Your task to perform on an android device: turn on javascript in the chrome app Image 0: 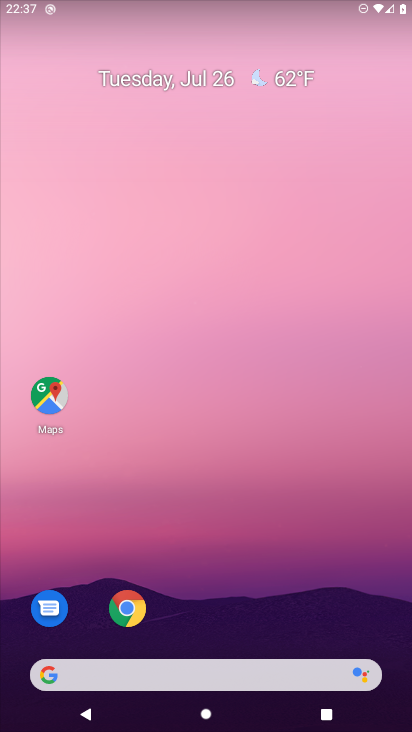
Step 0: click (120, 608)
Your task to perform on an android device: turn on javascript in the chrome app Image 1: 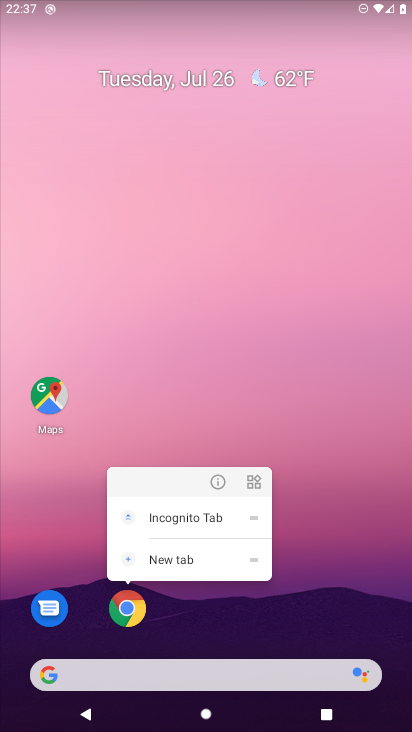
Step 1: click (121, 615)
Your task to perform on an android device: turn on javascript in the chrome app Image 2: 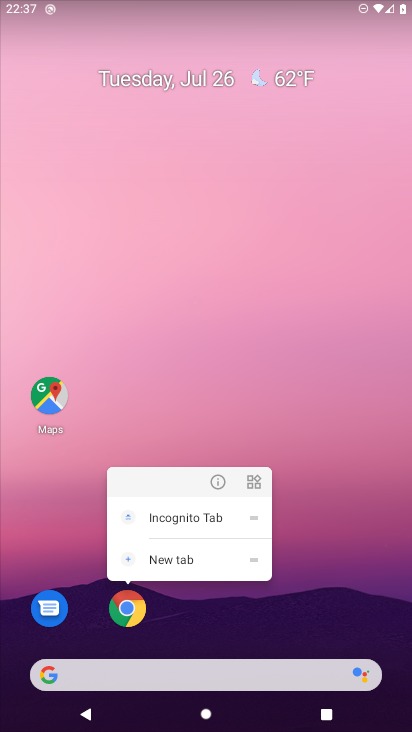
Step 2: click (130, 600)
Your task to perform on an android device: turn on javascript in the chrome app Image 3: 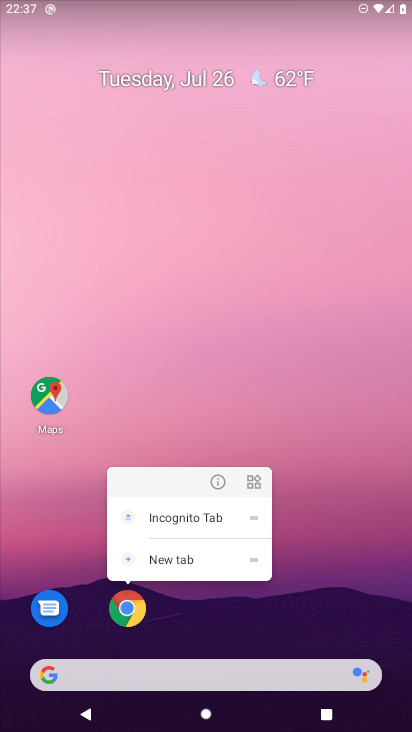
Step 3: click (142, 614)
Your task to perform on an android device: turn on javascript in the chrome app Image 4: 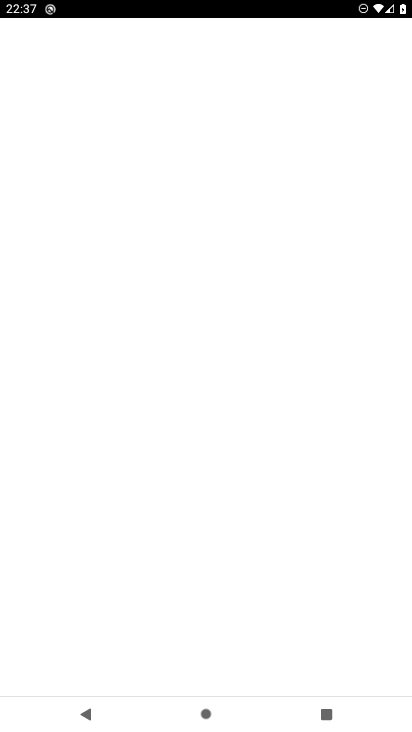
Step 4: click (119, 606)
Your task to perform on an android device: turn on javascript in the chrome app Image 5: 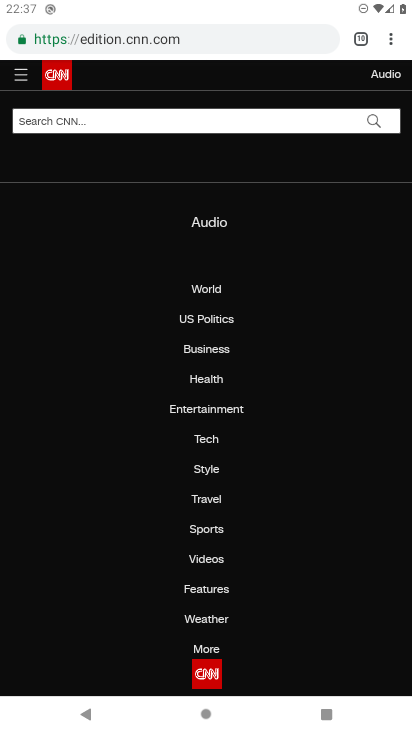
Step 5: click (396, 41)
Your task to perform on an android device: turn on javascript in the chrome app Image 6: 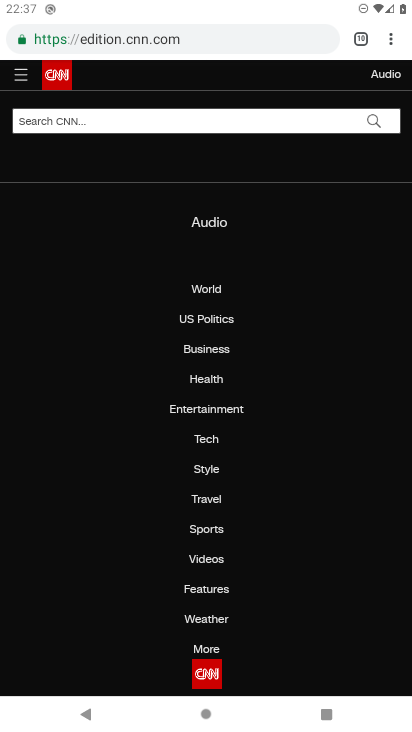
Step 6: click (390, 40)
Your task to perform on an android device: turn on javascript in the chrome app Image 7: 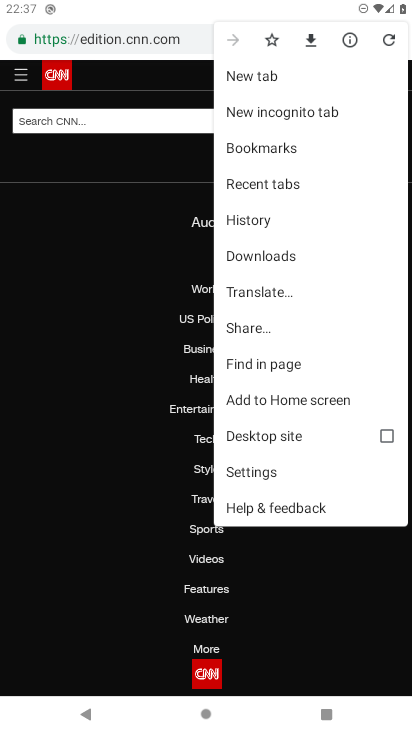
Step 7: click (266, 461)
Your task to perform on an android device: turn on javascript in the chrome app Image 8: 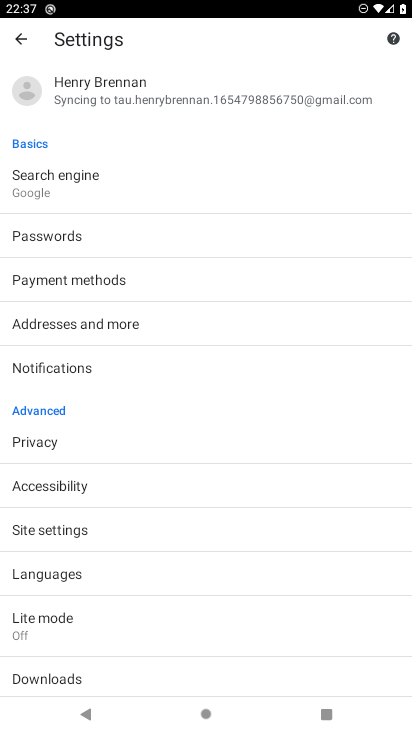
Step 8: click (40, 521)
Your task to perform on an android device: turn on javascript in the chrome app Image 9: 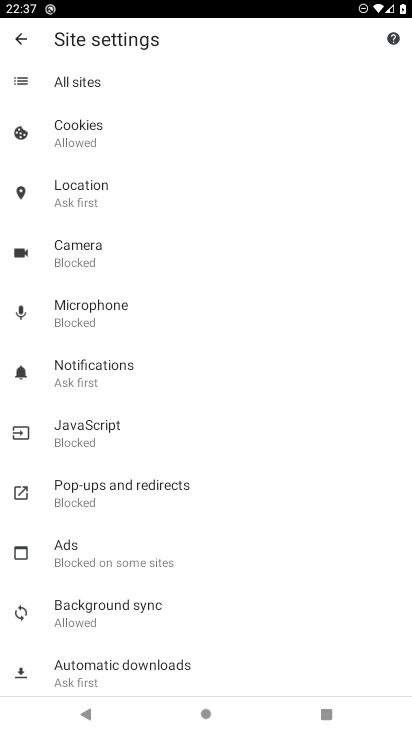
Step 9: click (103, 426)
Your task to perform on an android device: turn on javascript in the chrome app Image 10: 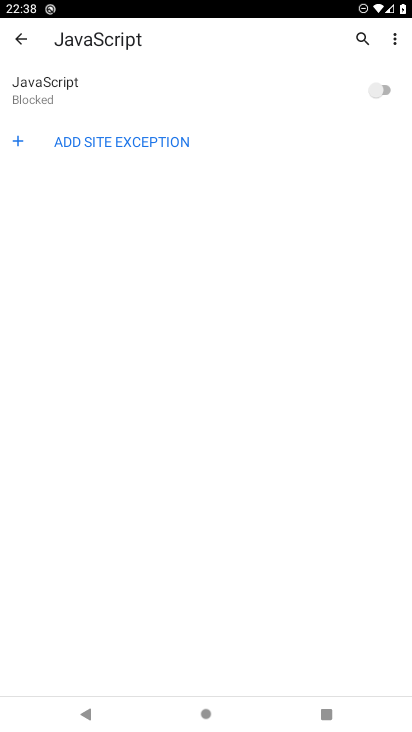
Step 10: click (384, 91)
Your task to perform on an android device: turn on javascript in the chrome app Image 11: 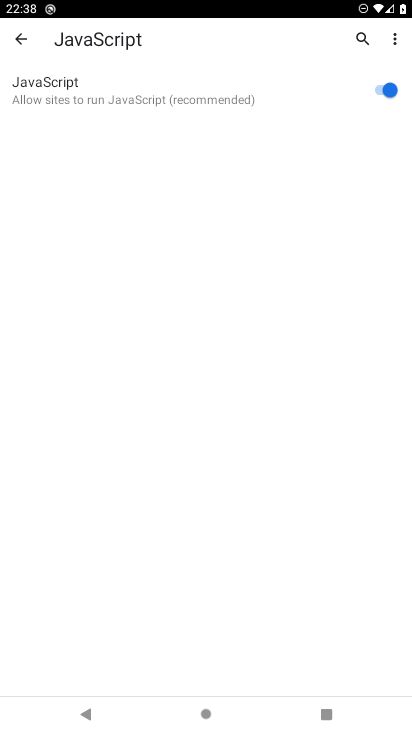
Step 11: task complete